Your task to perform on an android device: install app "Google Keep" Image 0: 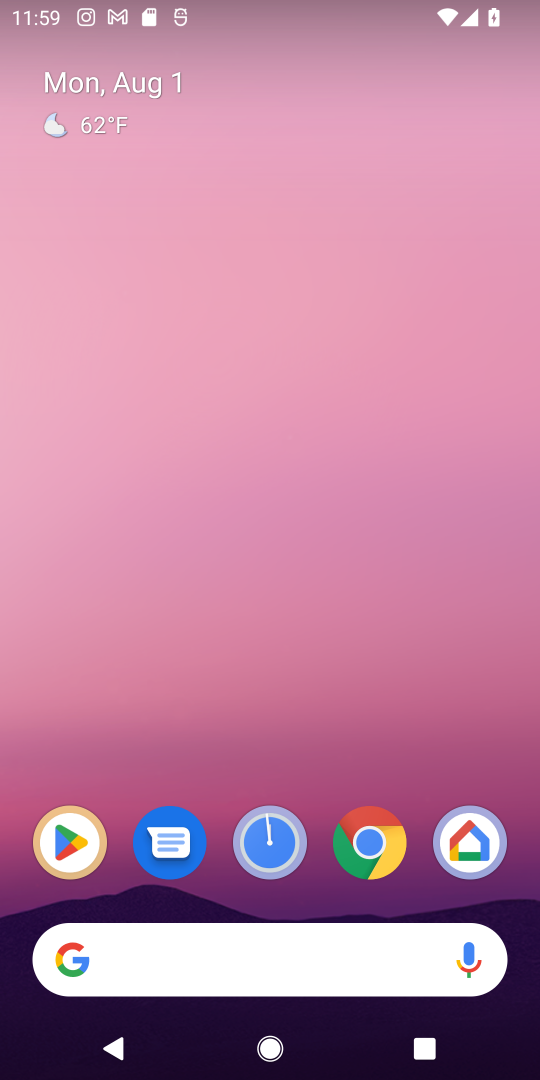
Step 0: click (71, 850)
Your task to perform on an android device: install app "Google Keep" Image 1: 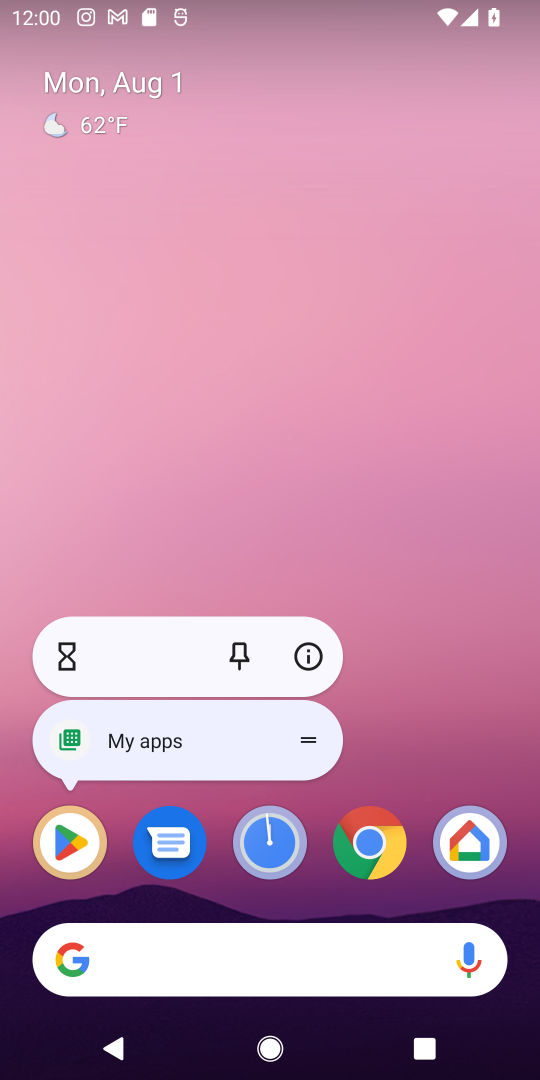
Step 1: click (71, 850)
Your task to perform on an android device: install app "Google Keep" Image 2: 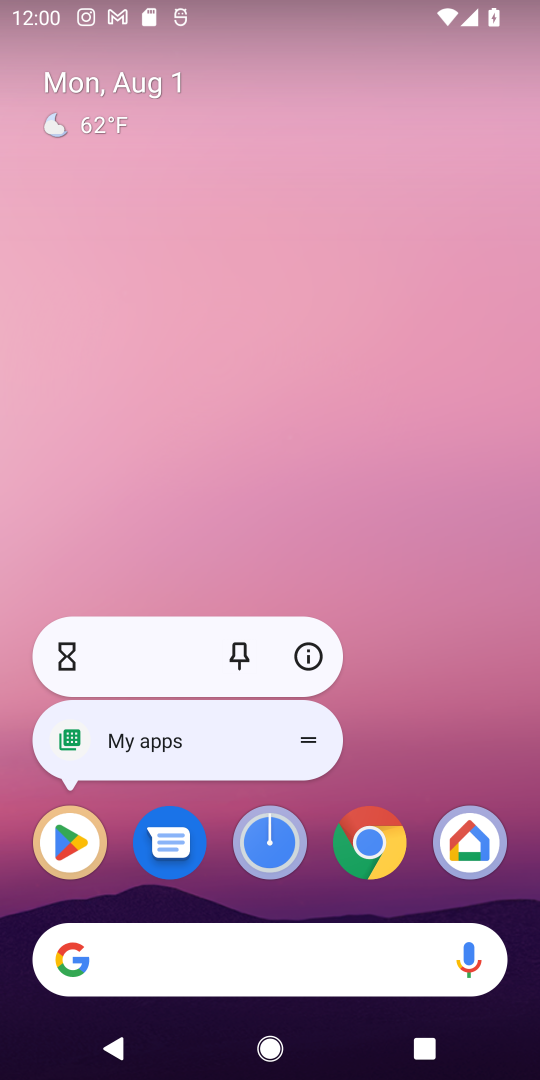
Step 2: click (75, 860)
Your task to perform on an android device: install app "Google Keep" Image 3: 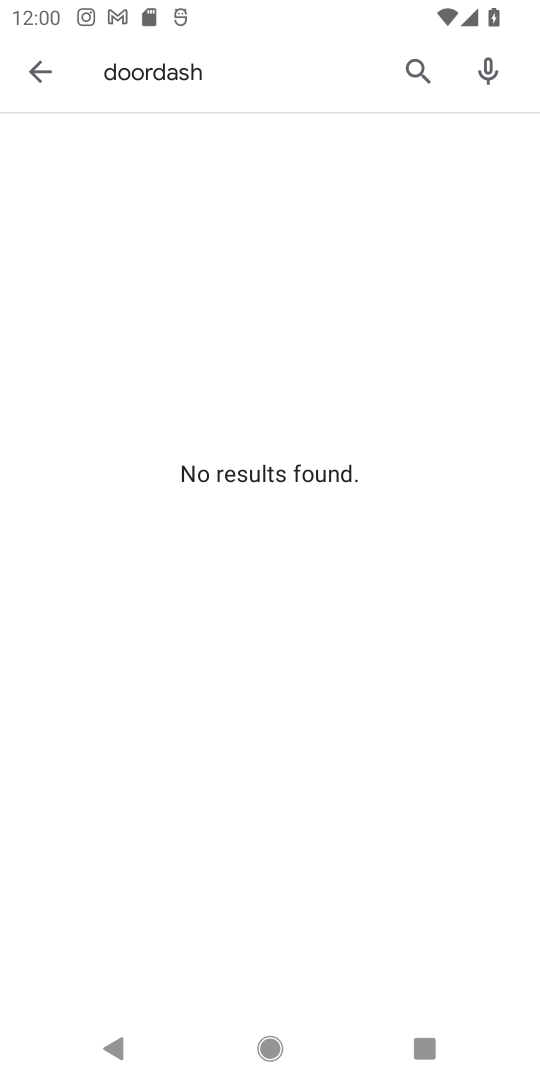
Step 3: click (415, 105)
Your task to perform on an android device: install app "Google Keep" Image 4: 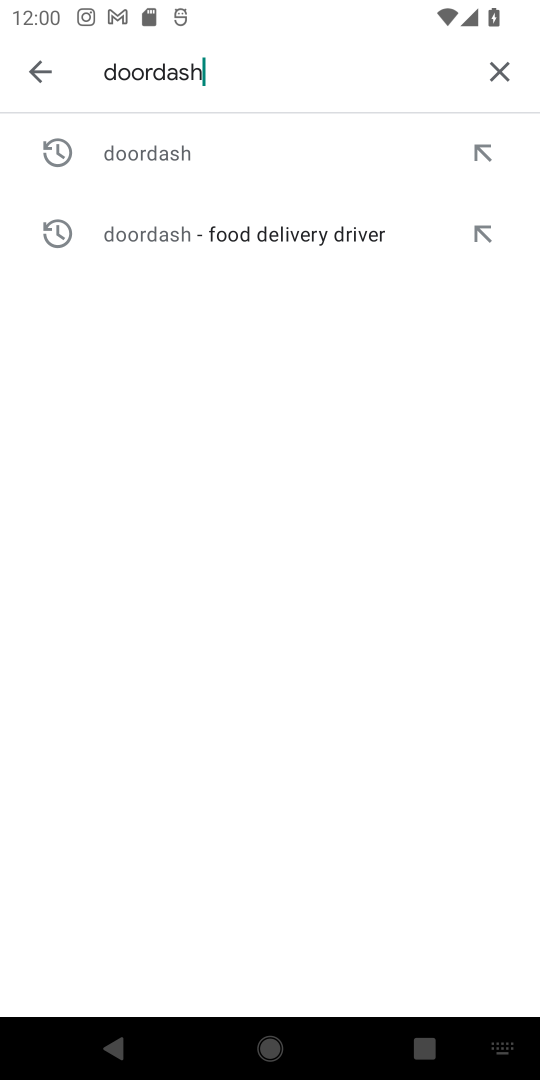
Step 4: click (508, 65)
Your task to perform on an android device: install app "Google Keep" Image 5: 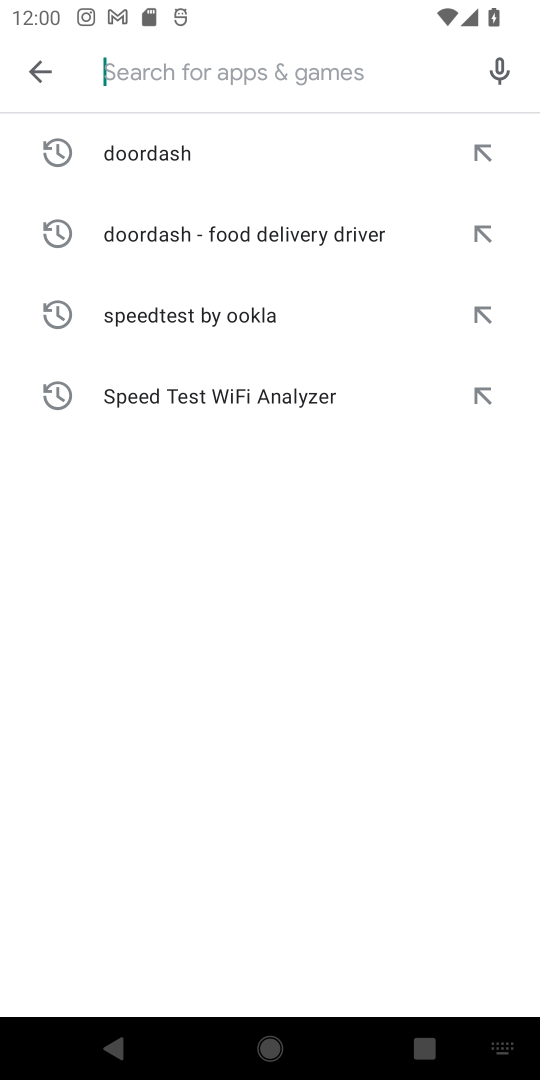
Step 5: type "google keep"
Your task to perform on an android device: install app "Google Keep" Image 6: 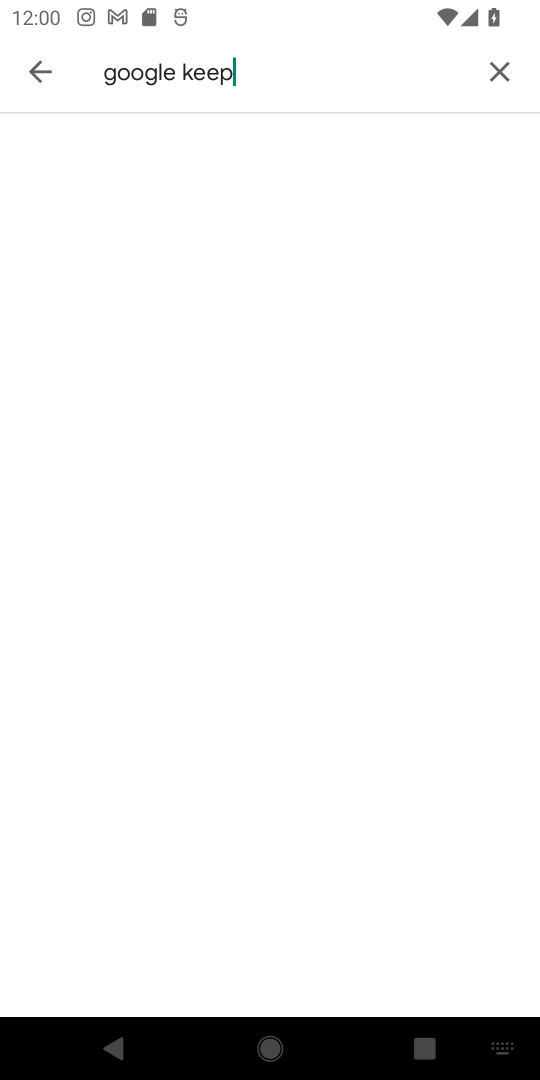
Step 6: click (493, 69)
Your task to perform on an android device: install app "Google Keep" Image 7: 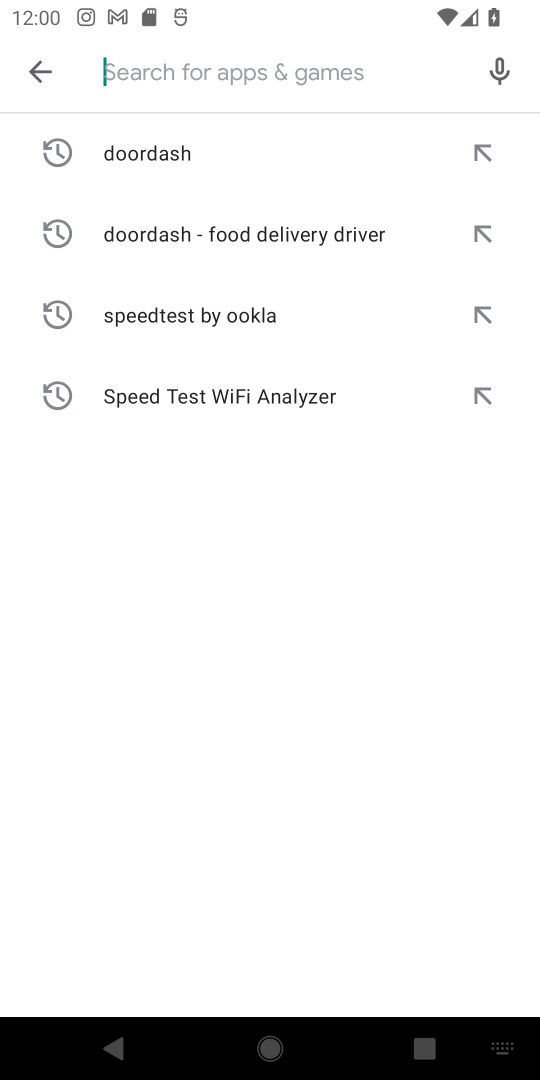
Step 7: type "googlekeep"
Your task to perform on an android device: install app "Google Keep" Image 8: 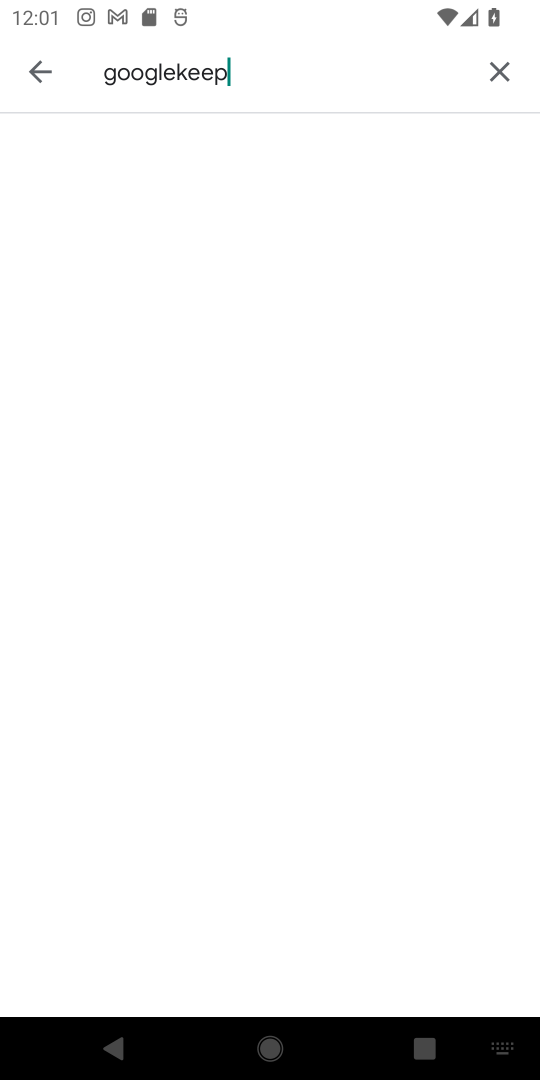
Step 8: task complete